Your task to perform on an android device: change the clock display to digital Image 0: 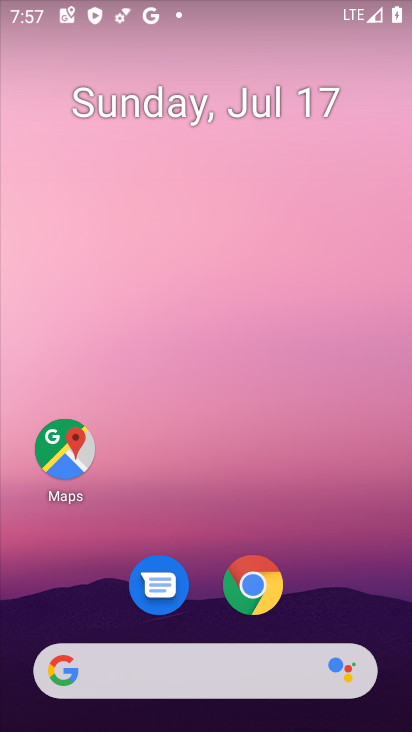
Step 0: drag from (322, 573) to (259, 44)
Your task to perform on an android device: change the clock display to digital Image 1: 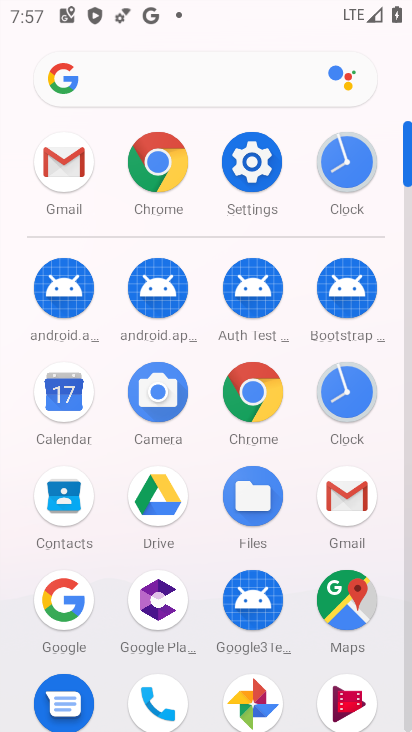
Step 1: click (343, 174)
Your task to perform on an android device: change the clock display to digital Image 2: 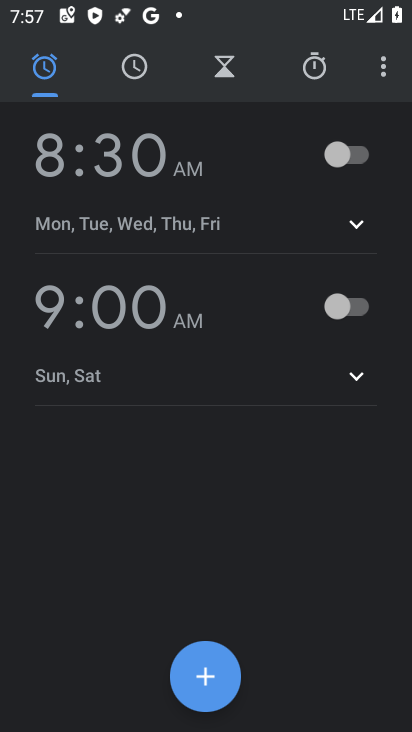
Step 2: click (122, 64)
Your task to perform on an android device: change the clock display to digital Image 3: 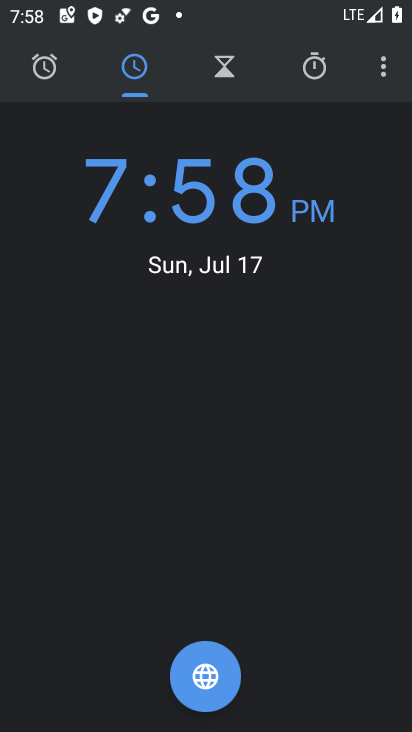
Step 3: task complete